Your task to perform on an android device: Play the new Drake video on YouTube Image 0: 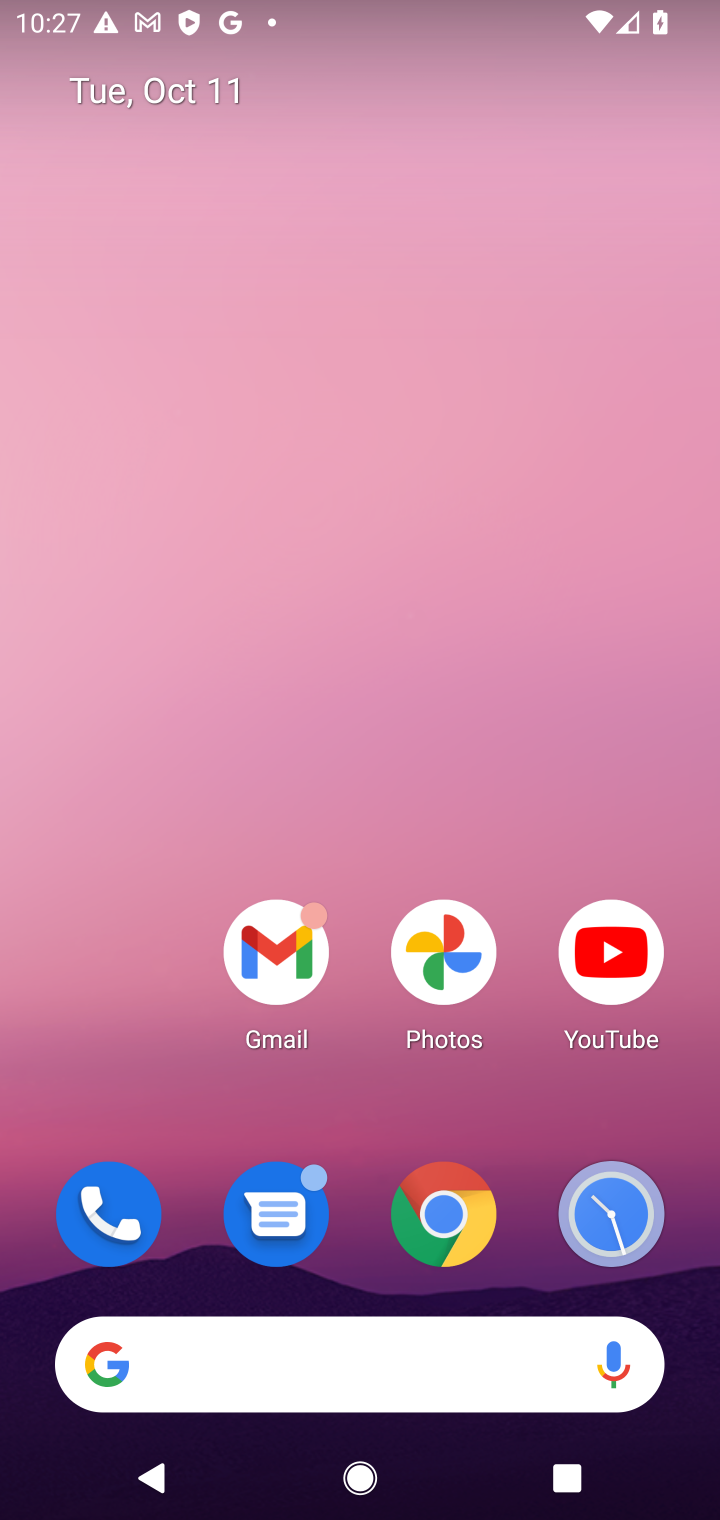
Step 0: drag from (383, 724) to (387, 318)
Your task to perform on an android device: Play the new Drake video on YouTube Image 1: 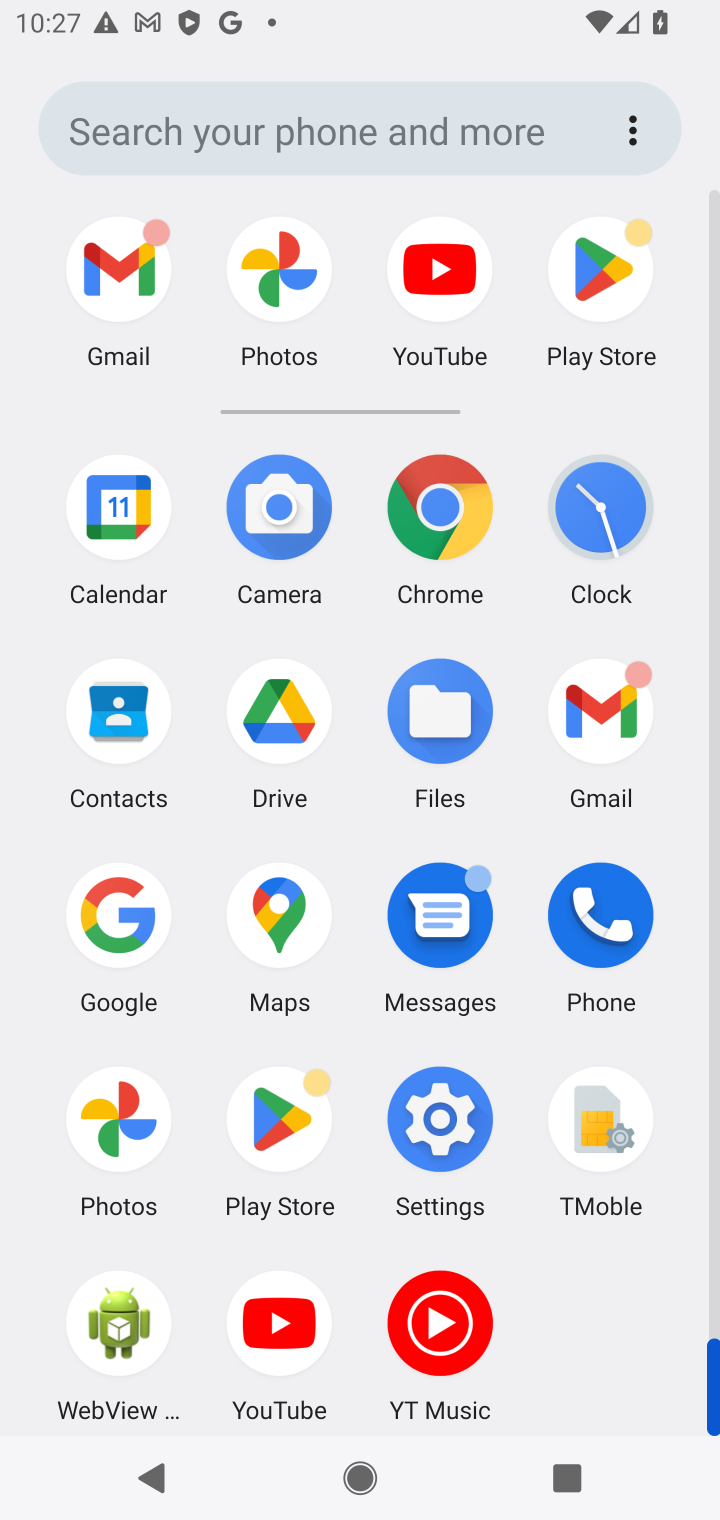
Step 1: click (267, 1315)
Your task to perform on an android device: Play the new Drake video on YouTube Image 2: 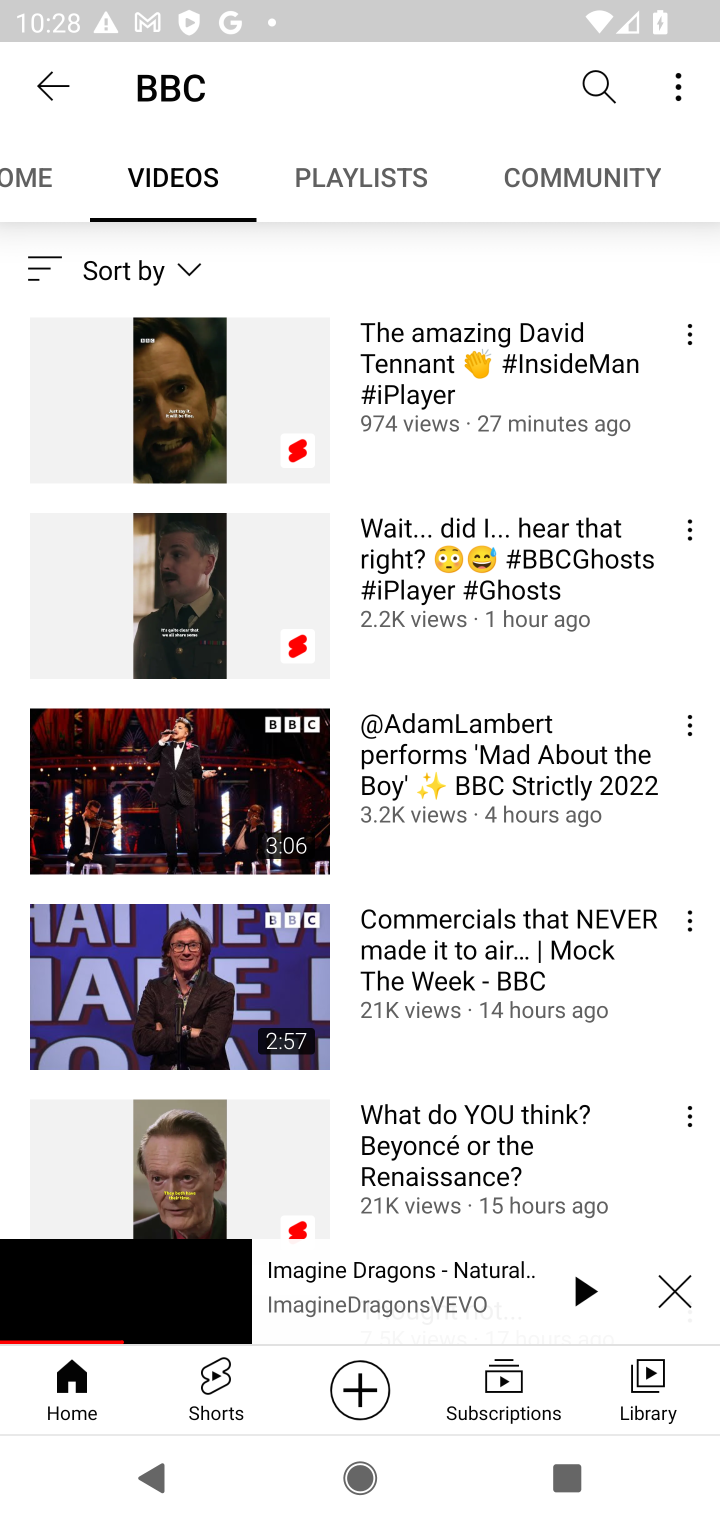
Step 2: press back button
Your task to perform on an android device: Play the new Drake video on YouTube Image 3: 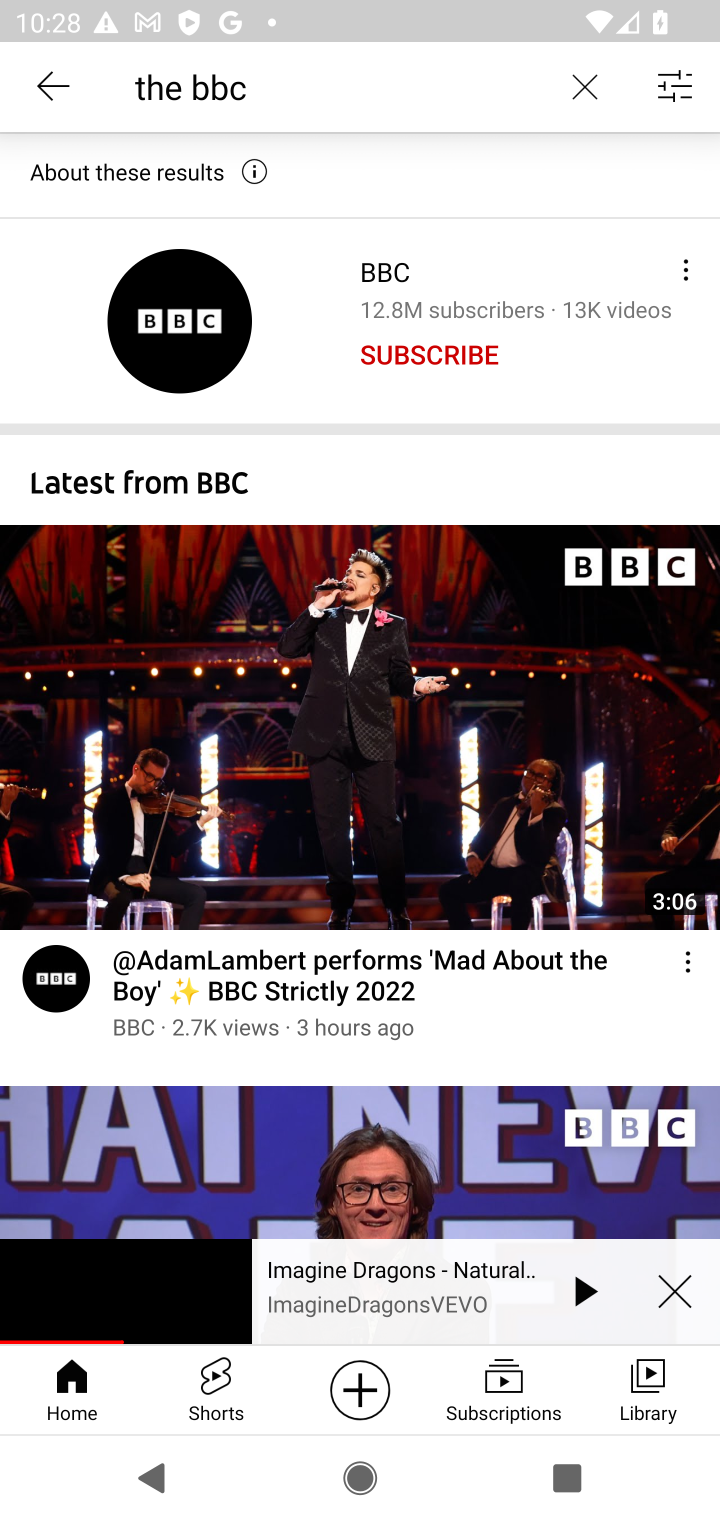
Step 3: click (580, 88)
Your task to perform on an android device: Play the new Drake video on YouTube Image 4: 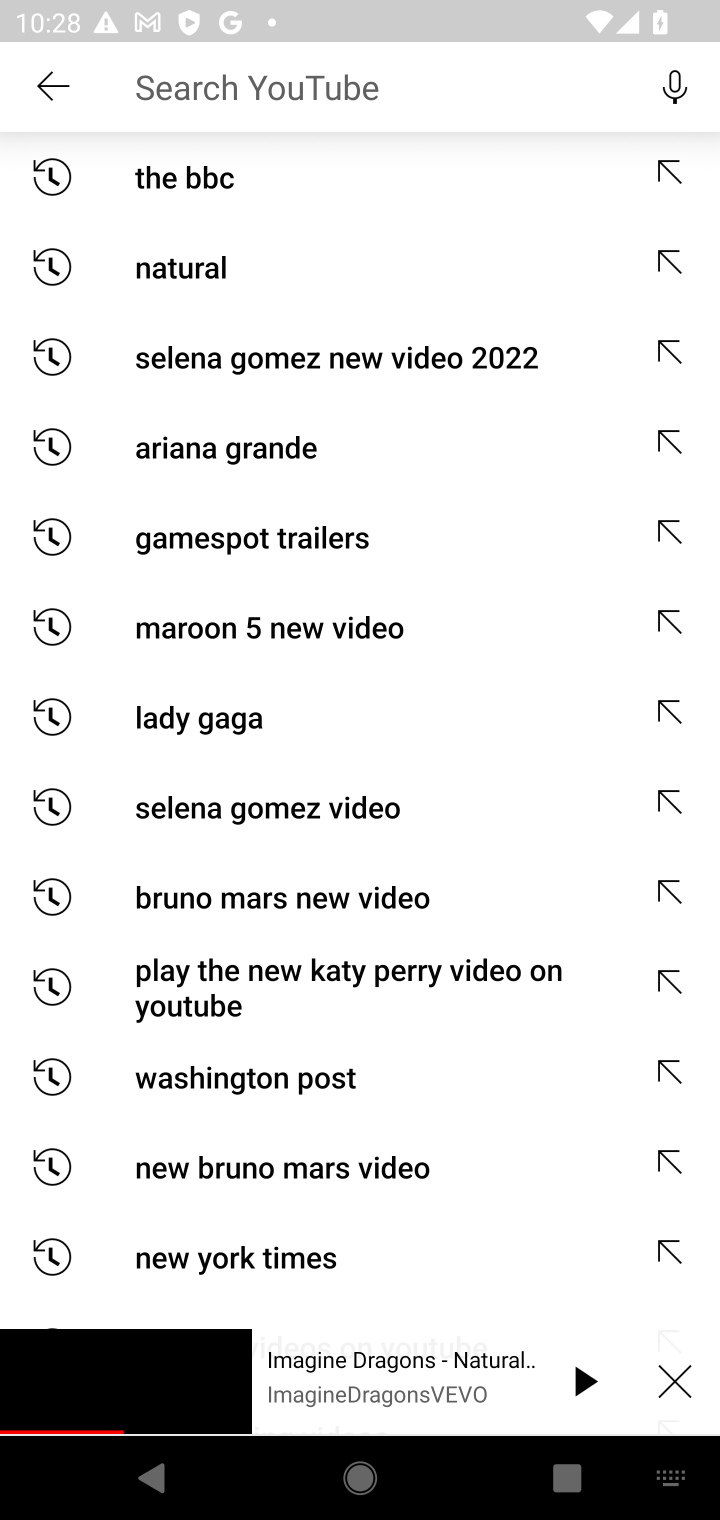
Step 4: type "Drake video"
Your task to perform on an android device: Play the new Drake video on YouTube Image 5: 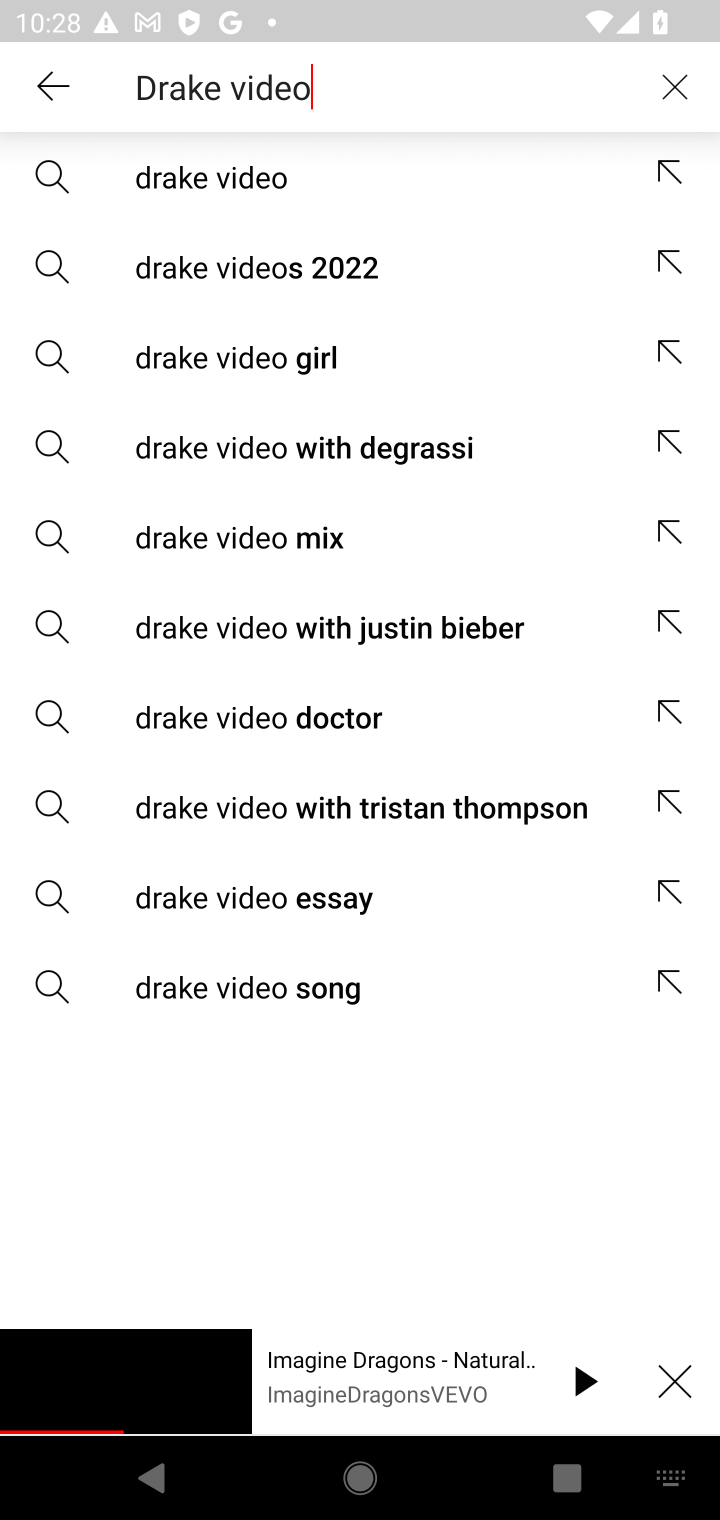
Step 5: press enter
Your task to perform on an android device: Play the new Drake video on YouTube Image 6: 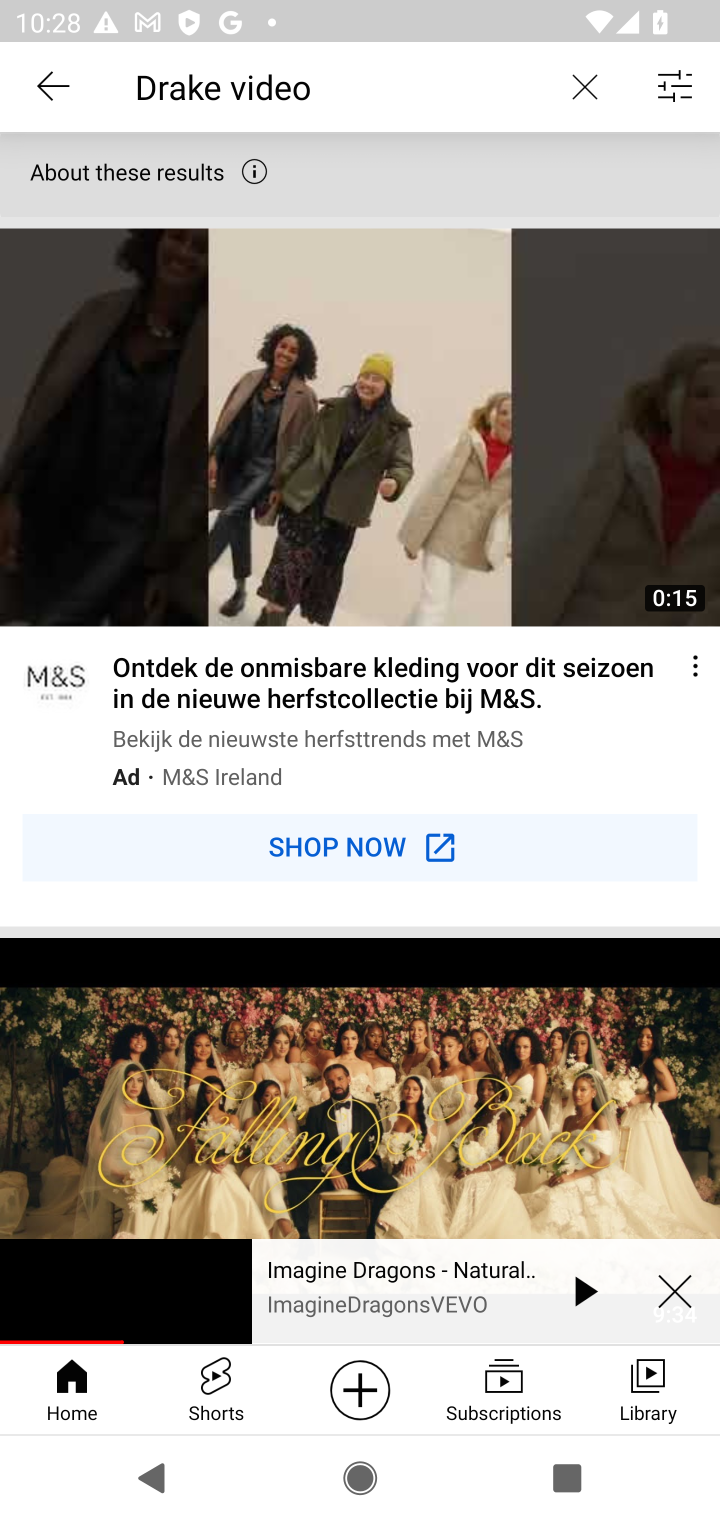
Step 6: drag from (325, 1013) to (345, 509)
Your task to perform on an android device: Play the new Drake video on YouTube Image 7: 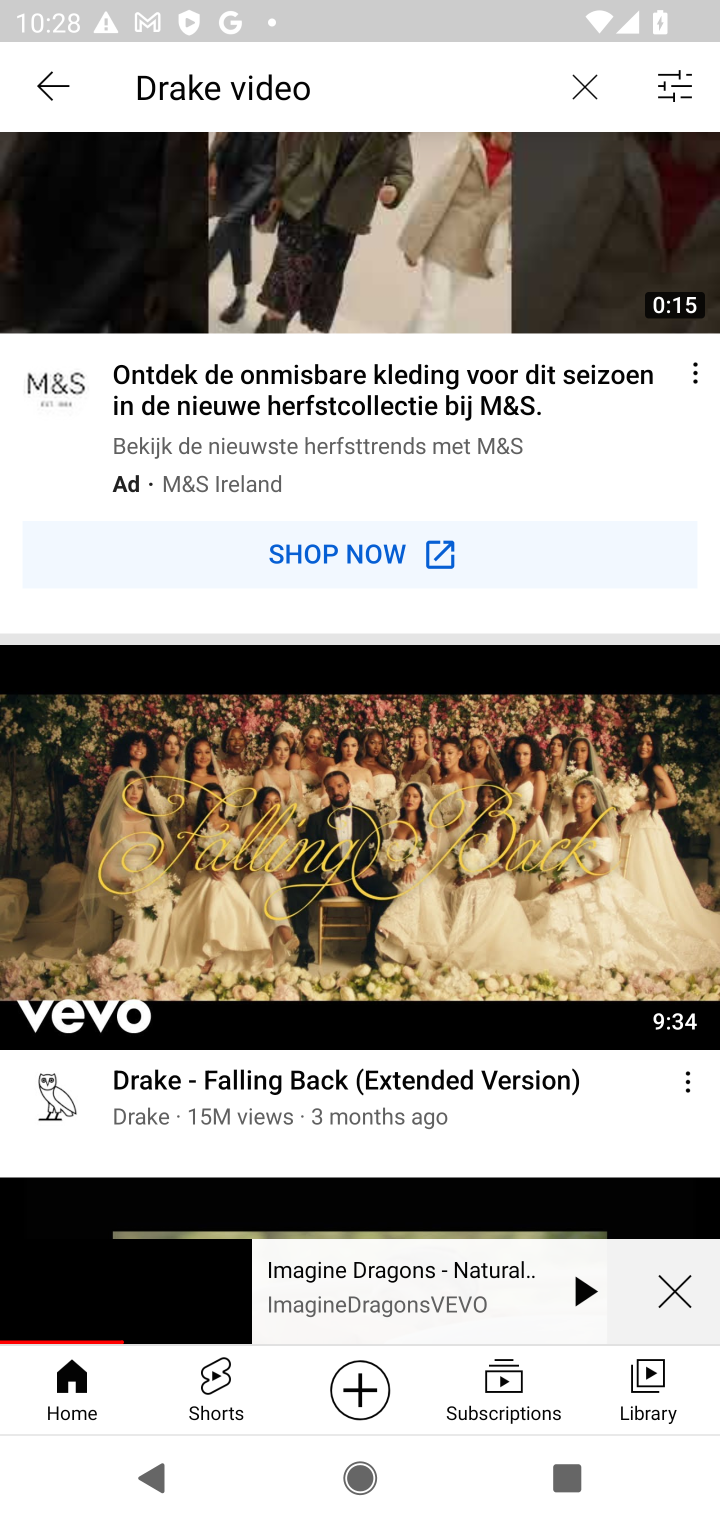
Step 7: drag from (226, 1009) to (317, 536)
Your task to perform on an android device: Play the new Drake video on YouTube Image 8: 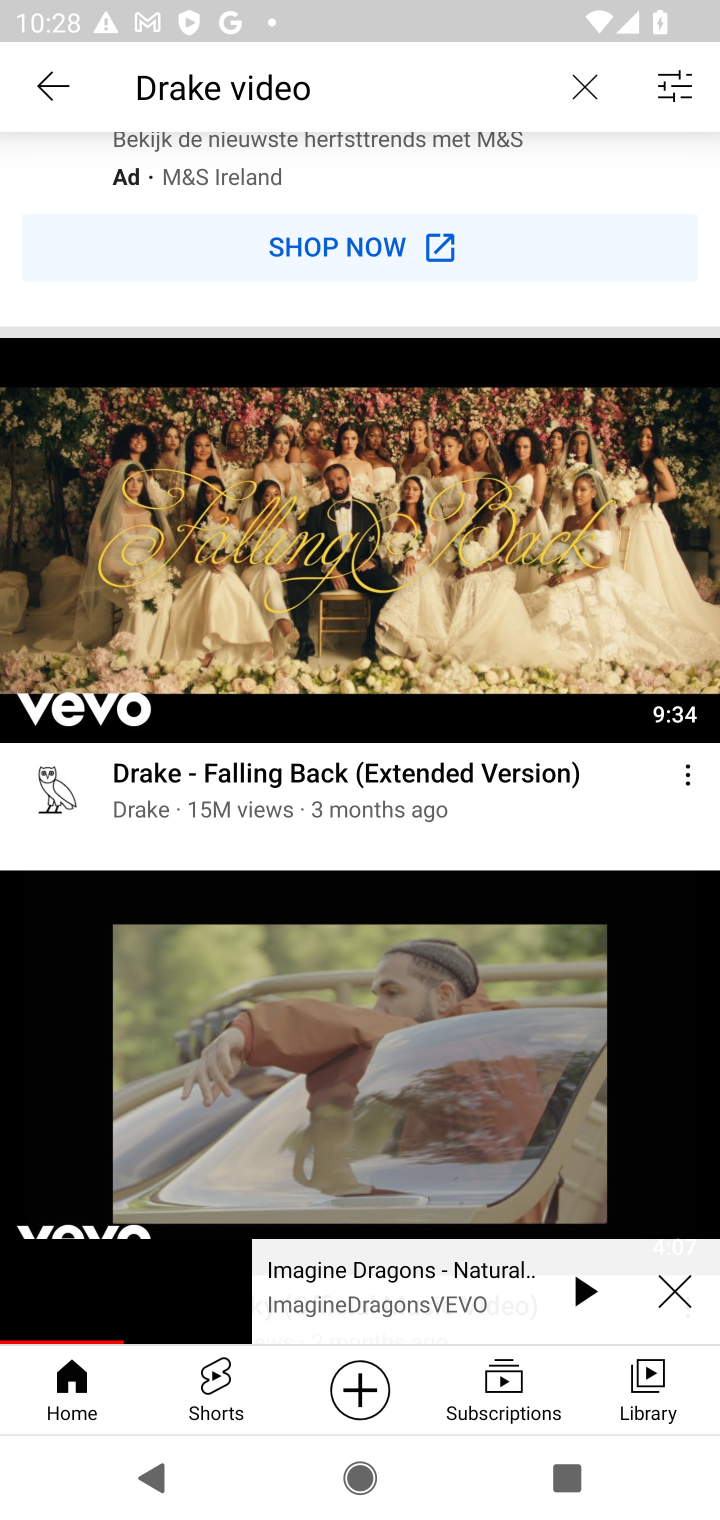
Step 8: click (54, 792)
Your task to perform on an android device: Play the new Drake video on YouTube Image 9: 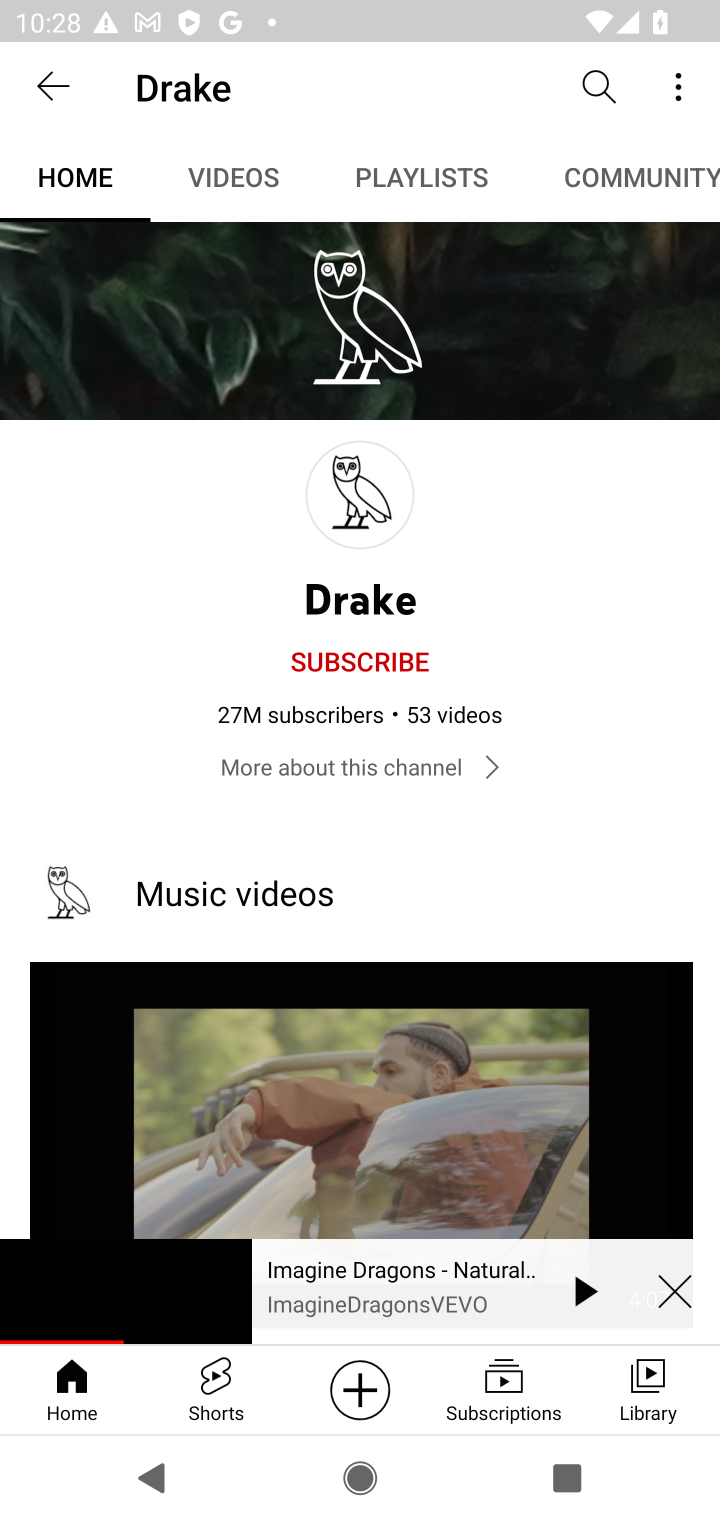
Step 9: click (208, 184)
Your task to perform on an android device: Play the new Drake video on YouTube Image 10: 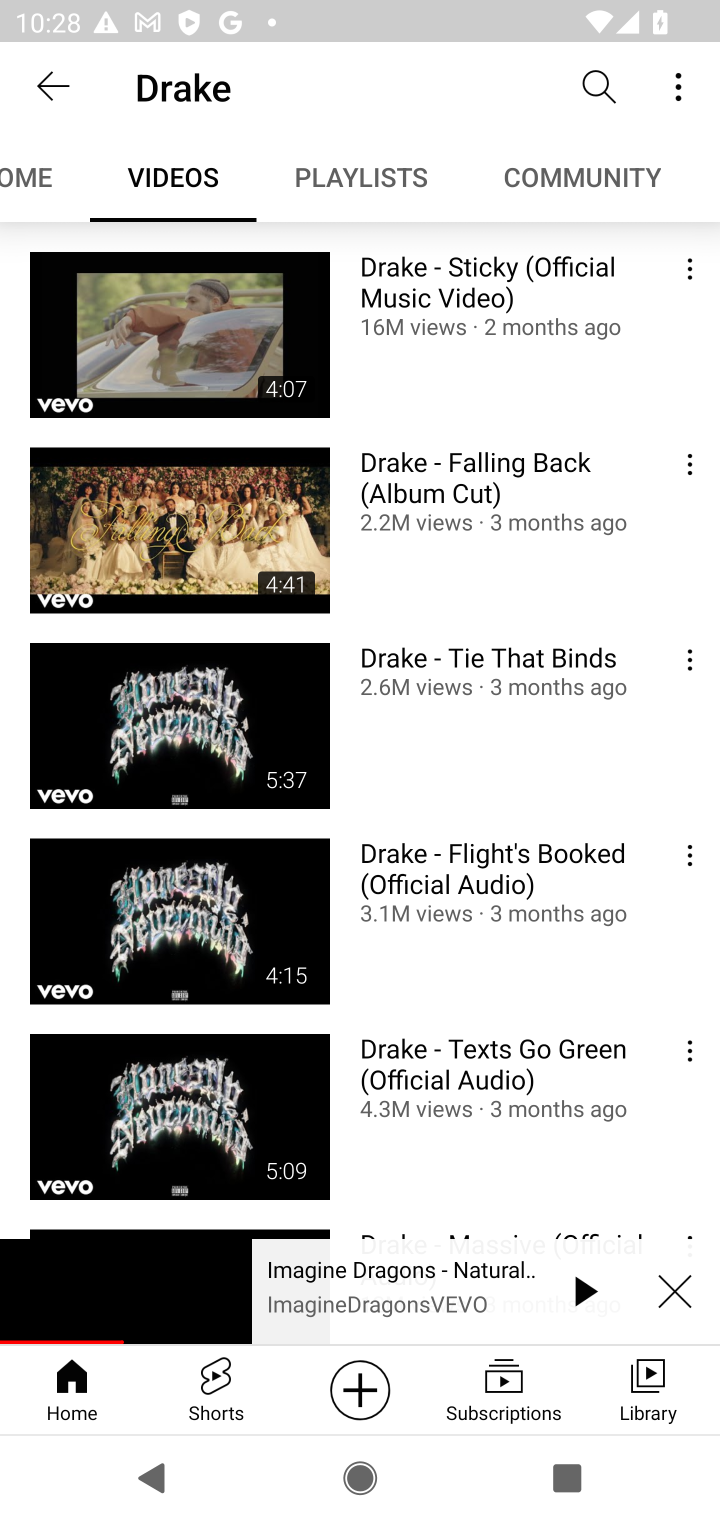
Step 10: click (238, 311)
Your task to perform on an android device: Play the new Drake video on YouTube Image 11: 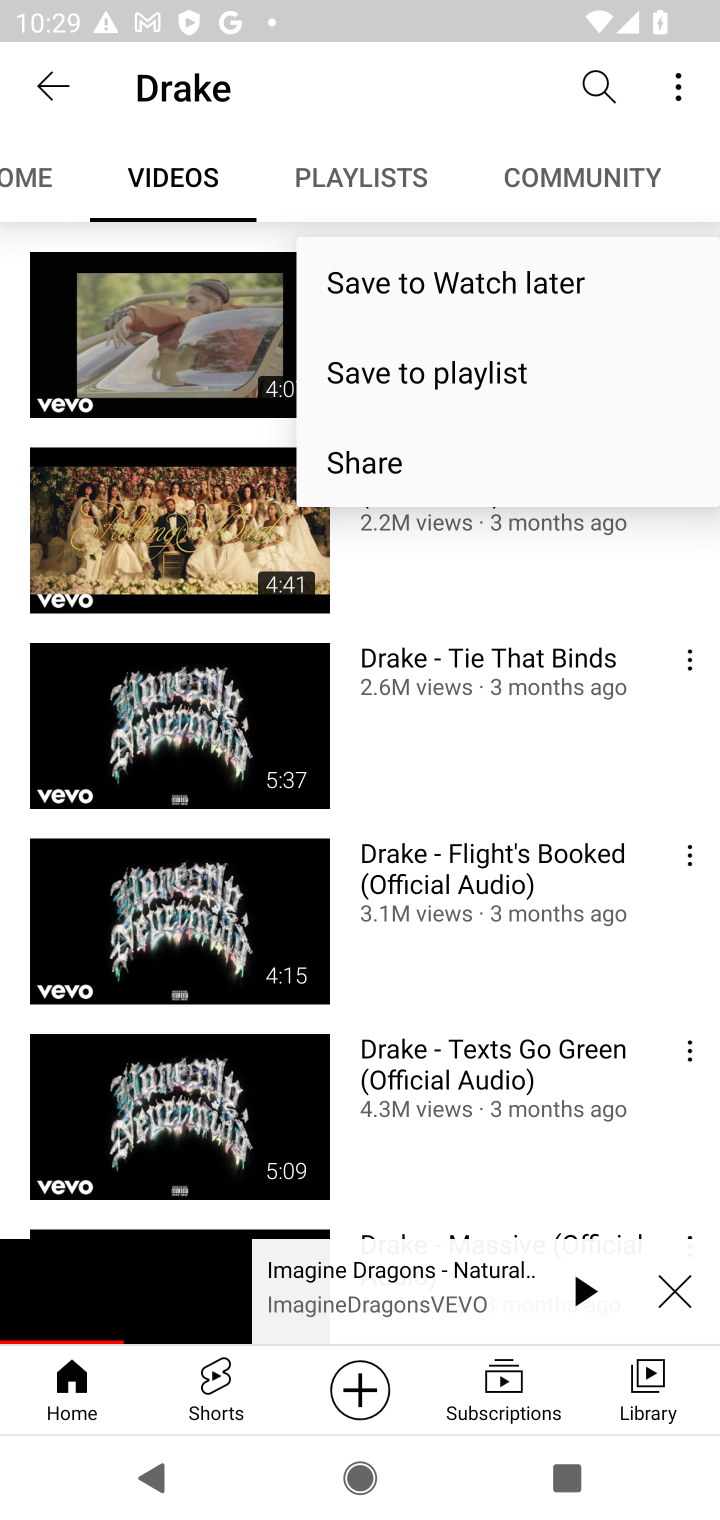
Step 11: click (185, 282)
Your task to perform on an android device: Play the new Drake video on YouTube Image 12: 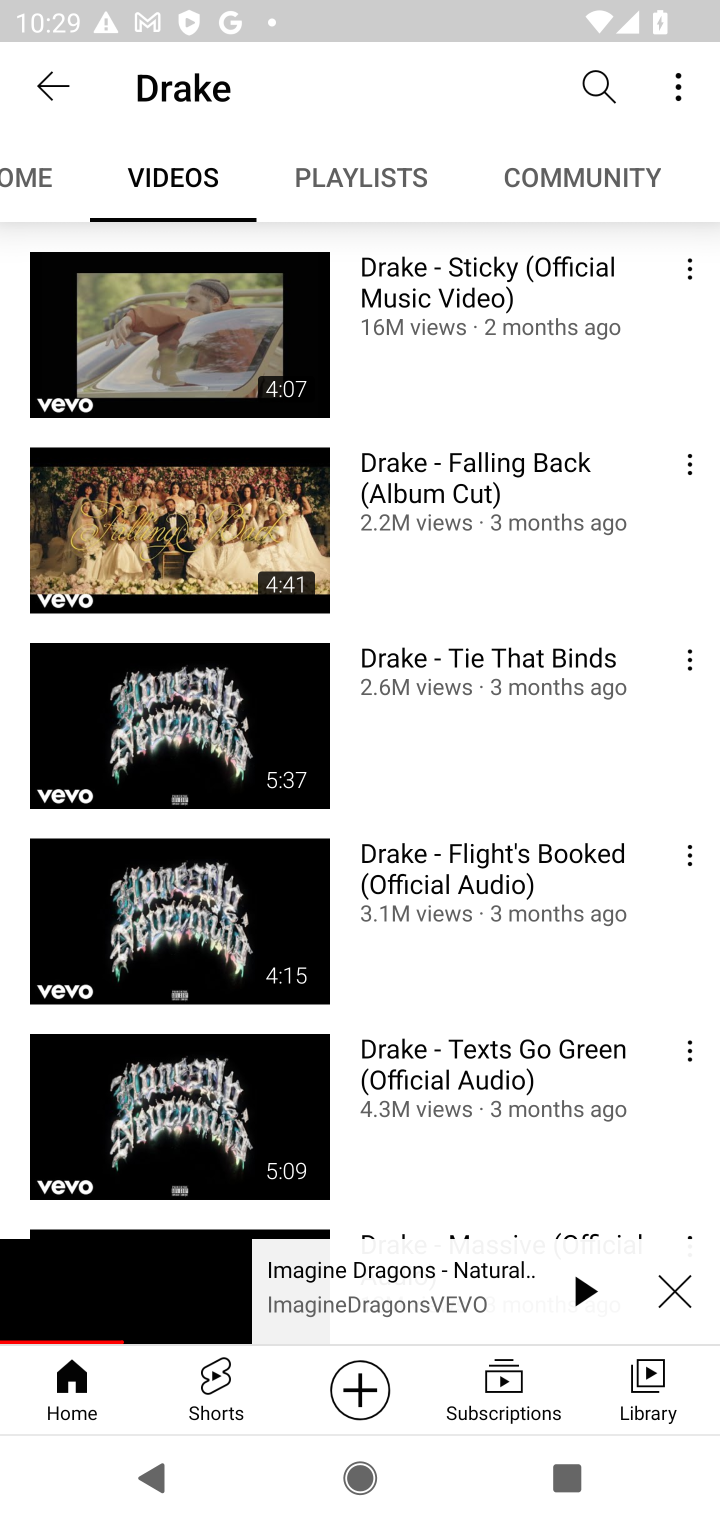
Step 12: click (274, 340)
Your task to perform on an android device: Play the new Drake video on YouTube Image 13: 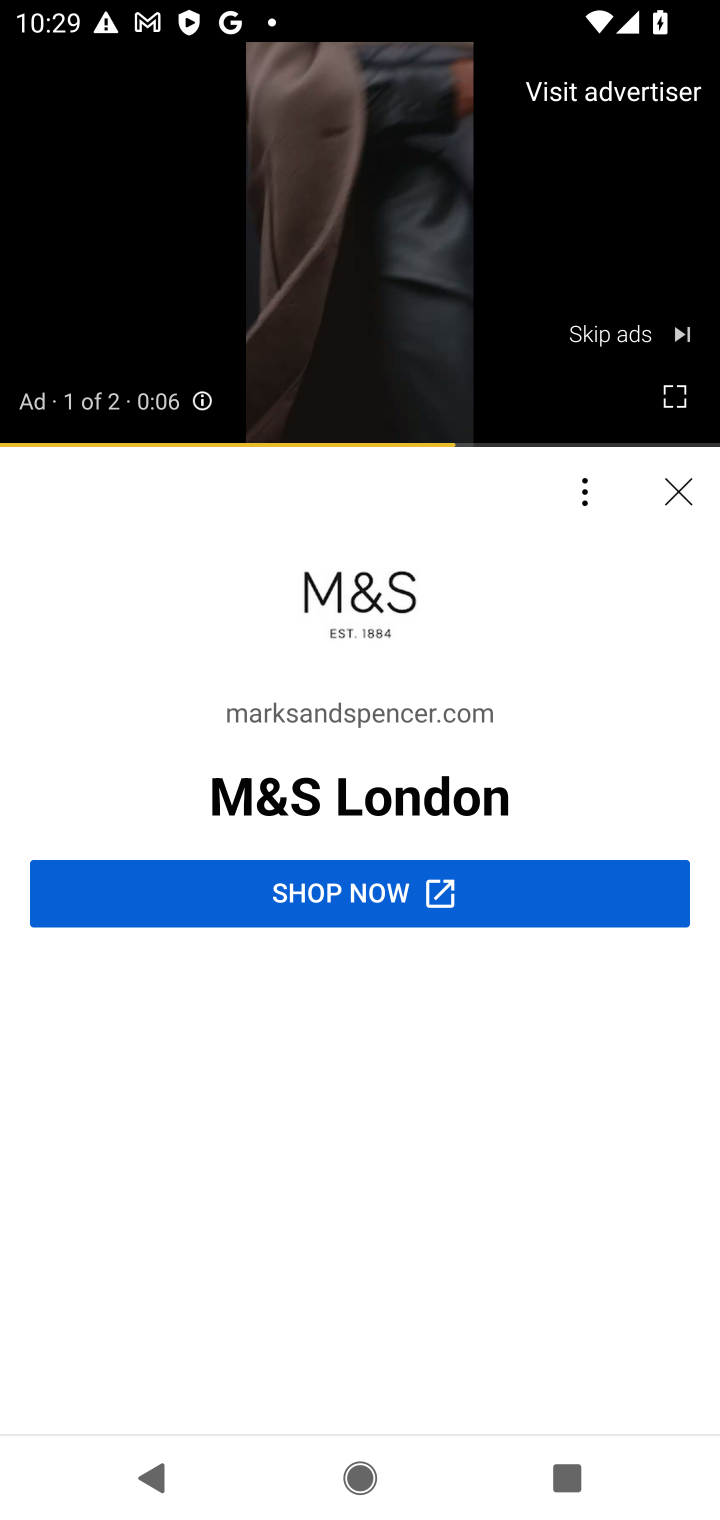
Step 13: click (643, 326)
Your task to perform on an android device: Play the new Drake video on YouTube Image 14: 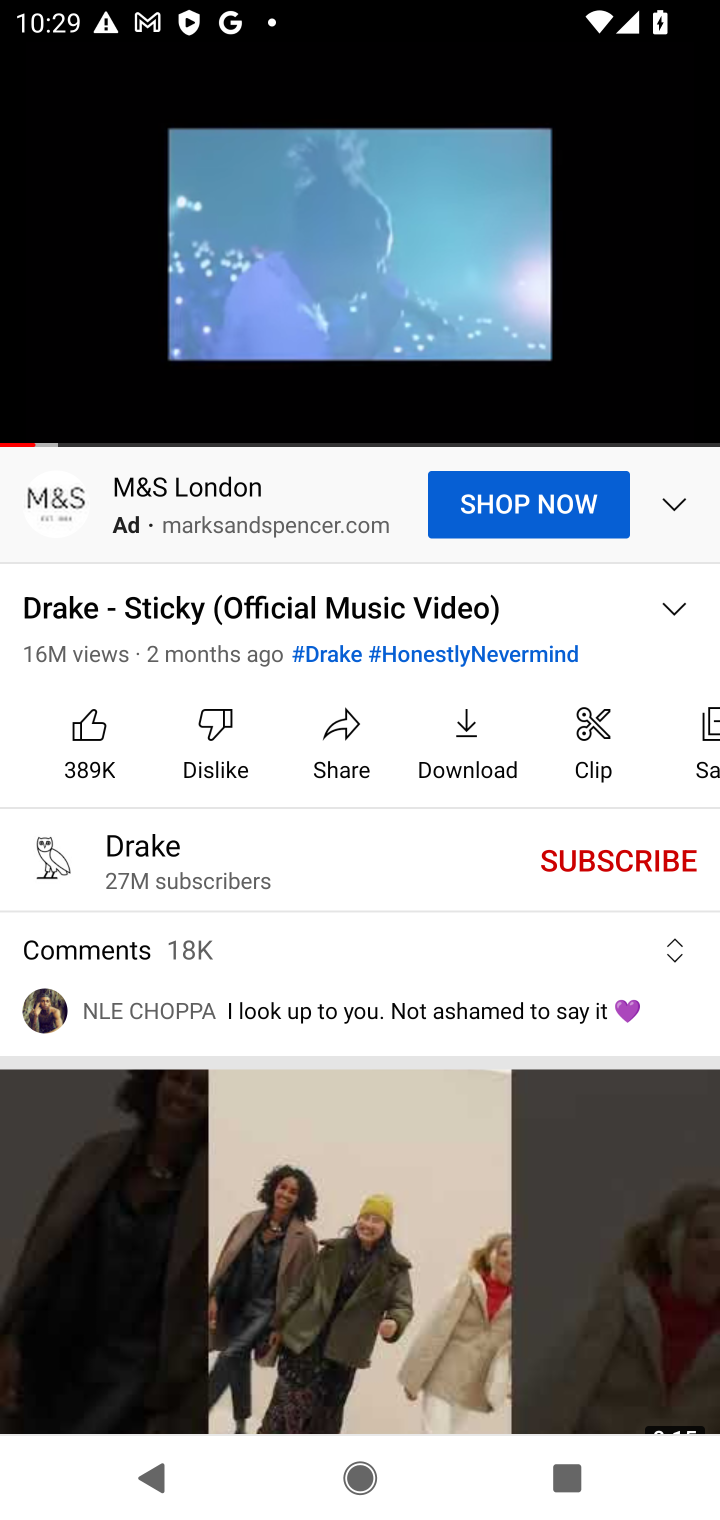
Step 14: task complete